Your task to perform on an android device: visit the assistant section in the google photos Image 0: 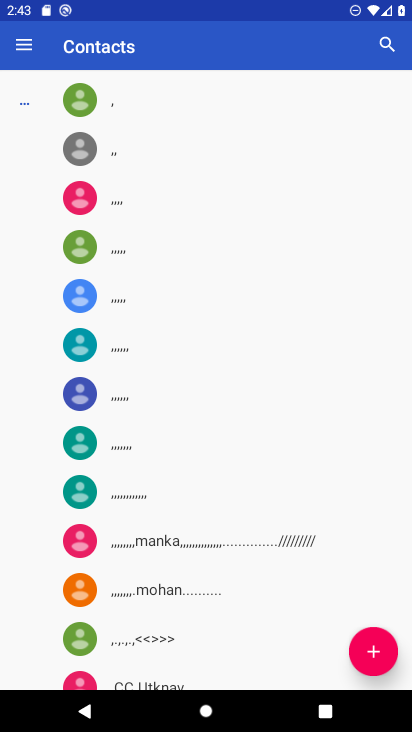
Step 0: press home button
Your task to perform on an android device: visit the assistant section in the google photos Image 1: 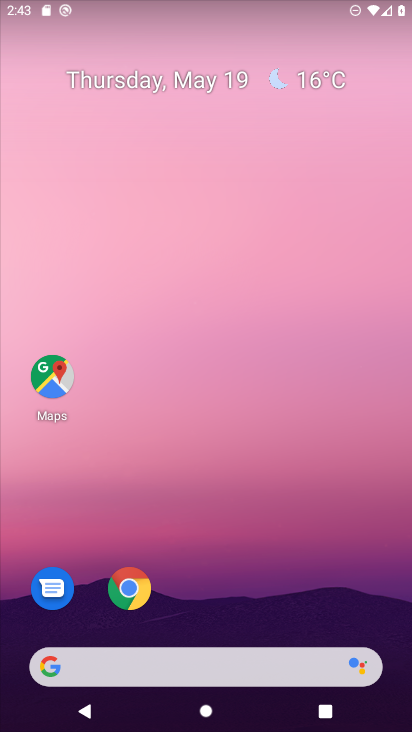
Step 1: drag from (277, 637) to (319, 11)
Your task to perform on an android device: visit the assistant section in the google photos Image 2: 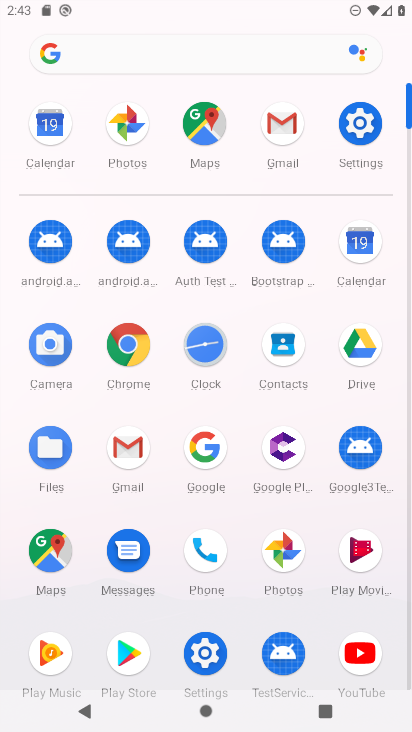
Step 2: click (121, 132)
Your task to perform on an android device: visit the assistant section in the google photos Image 3: 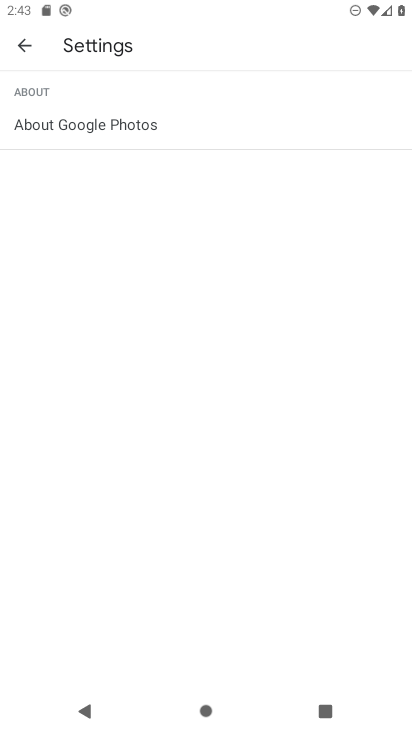
Step 3: click (20, 40)
Your task to perform on an android device: visit the assistant section in the google photos Image 4: 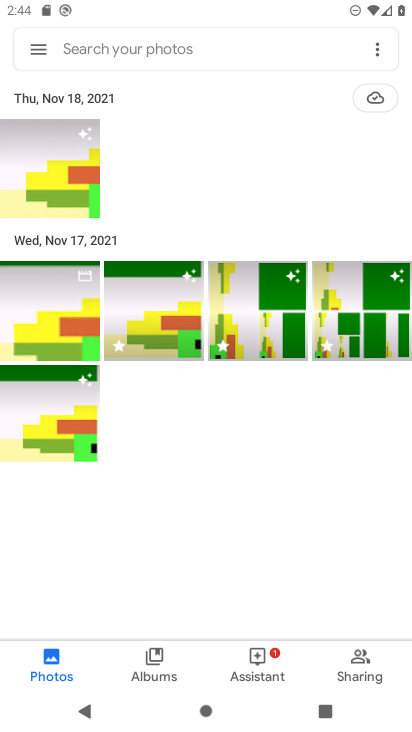
Step 4: click (261, 669)
Your task to perform on an android device: visit the assistant section in the google photos Image 5: 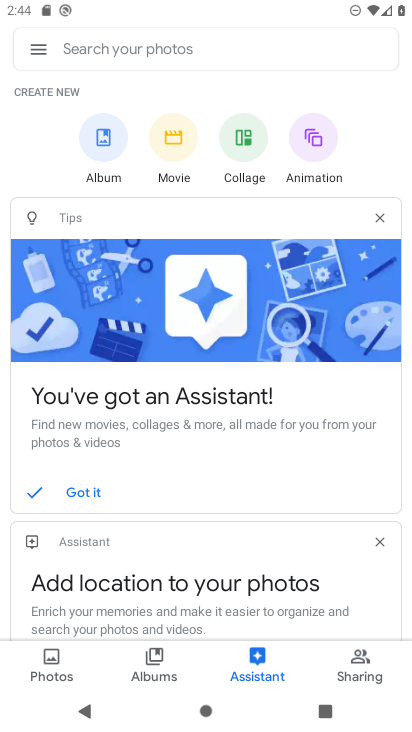
Step 5: task complete